Your task to perform on an android device: Open settings Image 0: 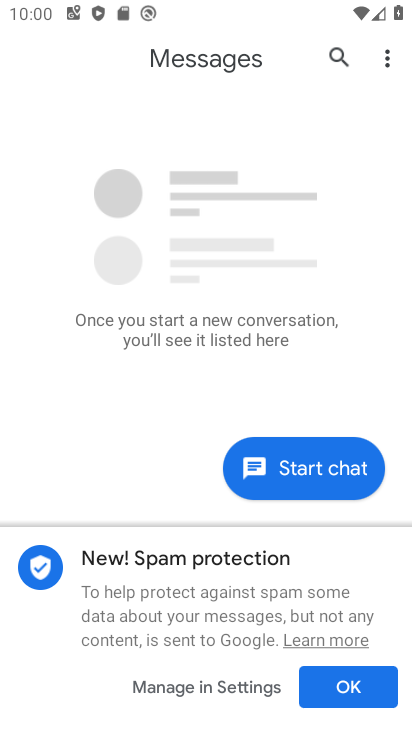
Step 0: press home button
Your task to perform on an android device: Open settings Image 1: 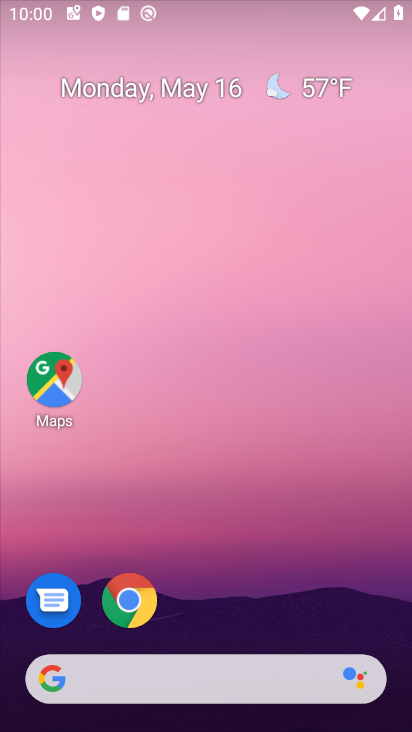
Step 1: drag from (323, 582) to (225, 62)
Your task to perform on an android device: Open settings Image 2: 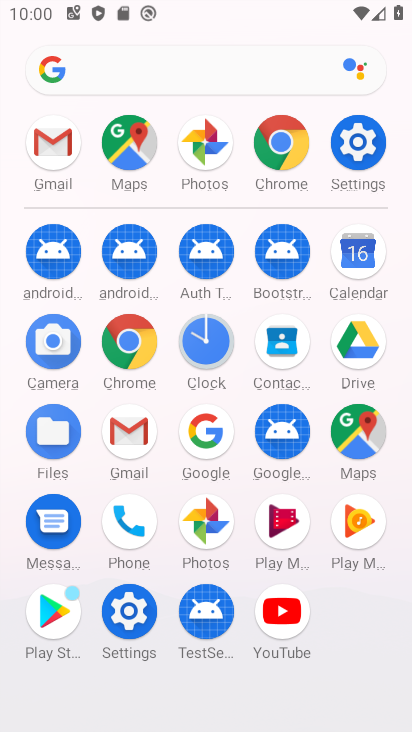
Step 2: click (364, 167)
Your task to perform on an android device: Open settings Image 3: 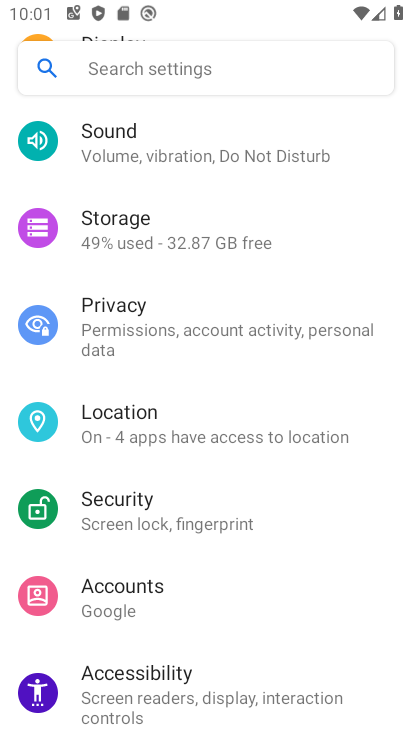
Step 3: task complete